Your task to perform on an android device: manage bookmarks in the chrome app Image 0: 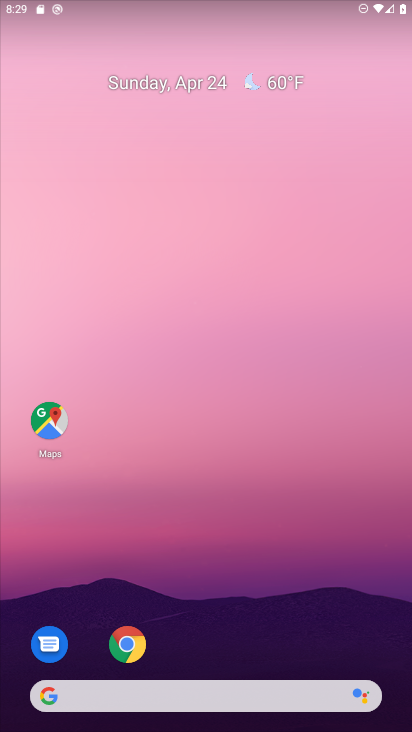
Step 0: drag from (216, 666) to (256, 107)
Your task to perform on an android device: manage bookmarks in the chrome app Image 1: 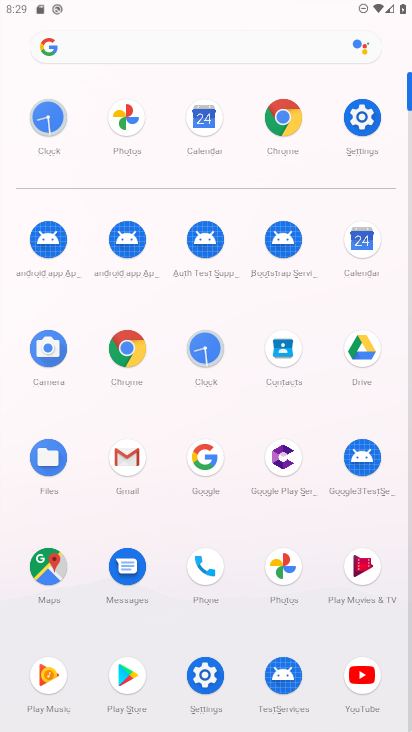
Step 1: click (126, 343)
Your task to perform on an android device: manage bookmarks in the chrome app Image 2: 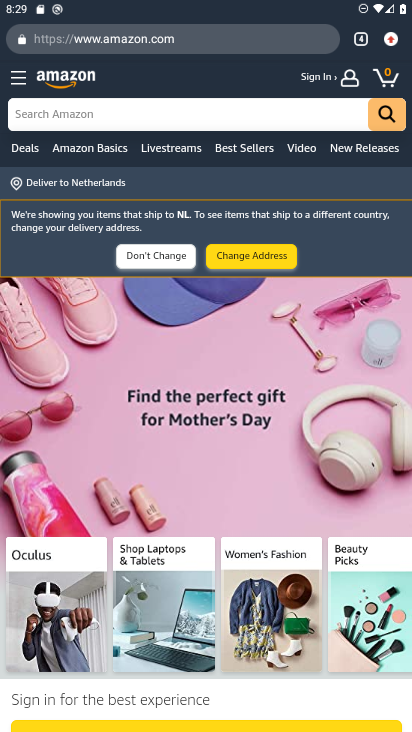
Step 2: click (391, 38)
Your task to perform on an android device: manage bookmarks in the chrome app Image 3: 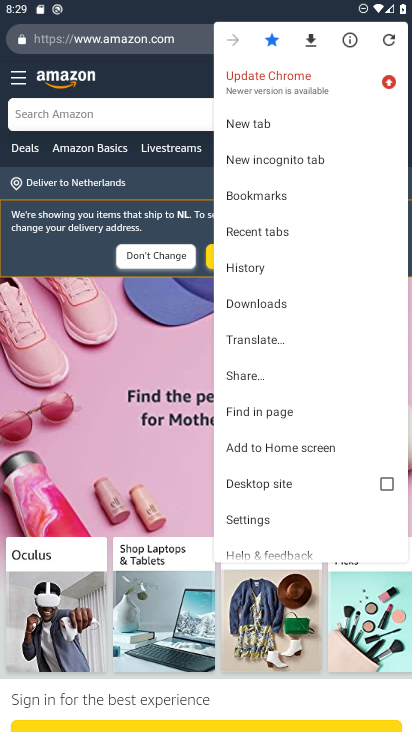
Step 3: click (290, 191)
Your task to perform on an android device: manage bookmarks in the chrome app Image 4: 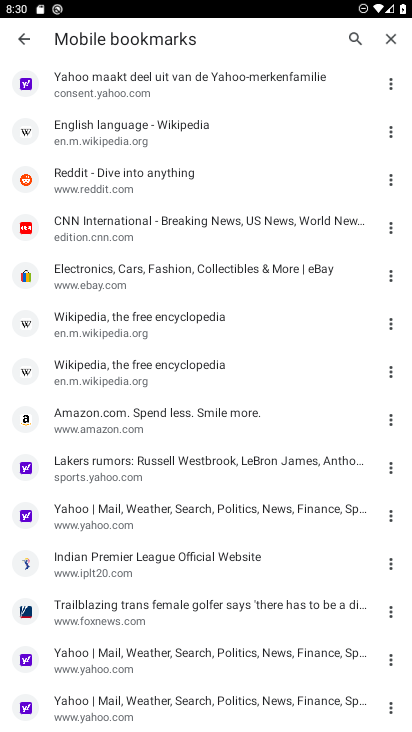
Step 4: click (389, 465)
Your task to perform on an android device: manage bookmarks in the chrome app Image 5: 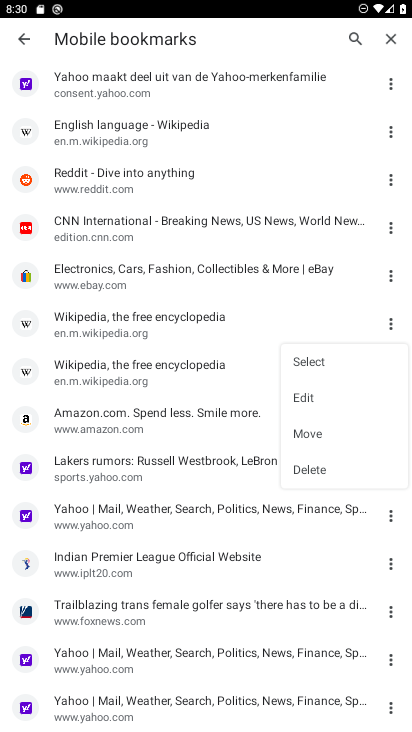
Step 5: click (329, 471)
Your task to perform on an android device: manage bookmarks in the chrome app Image 6: 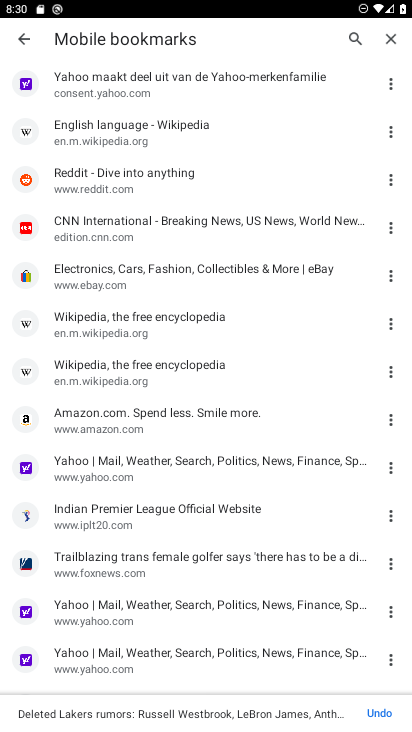
Step 6: task complete